Your task to perform on an android device: delete the emails in spam in the gmail app Image 0: 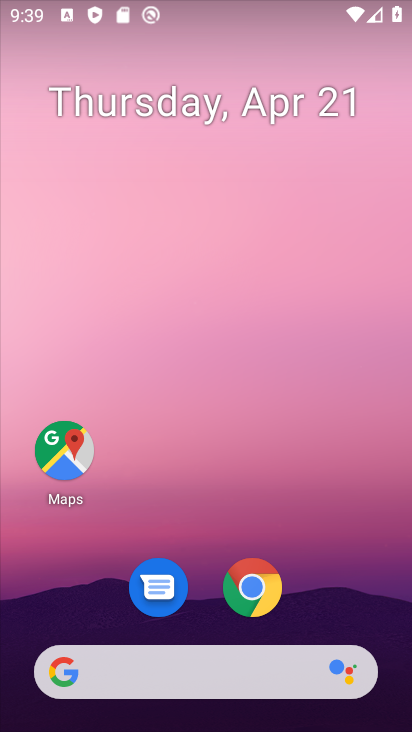
Step 0: drag from (86, 583) to (376, 168)
Your task to perform on an android device: delete the emails in spam in the gmail app Image 1: 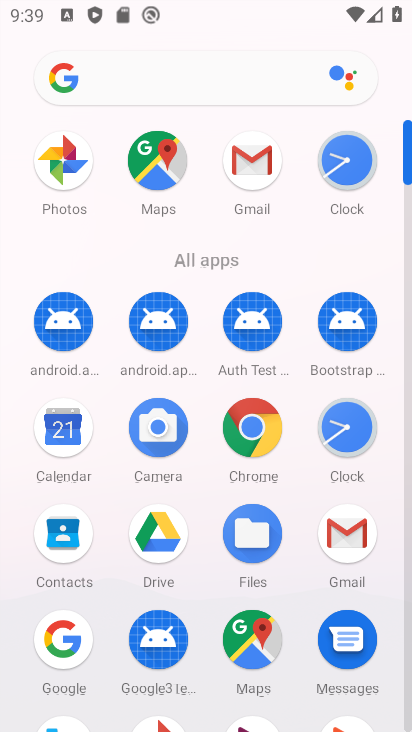
Step 1: click (333, 530)
Your task to perform on an android device: delete the emails in spam in the gmail app Image 2: 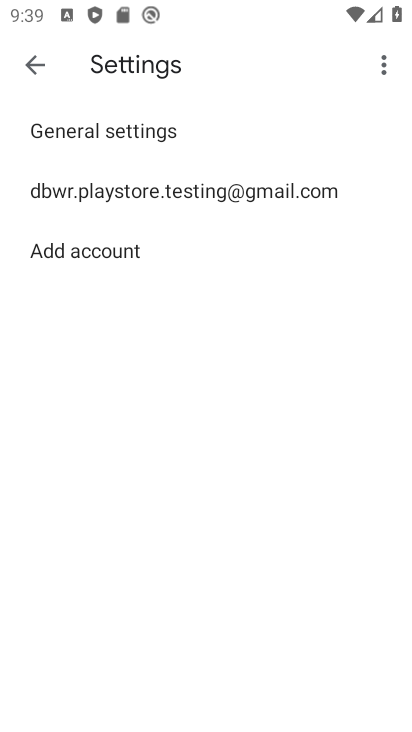
Step 2: press back button
Your task to perform on an android device: delete the emails in spam in the gmail app Image 3: 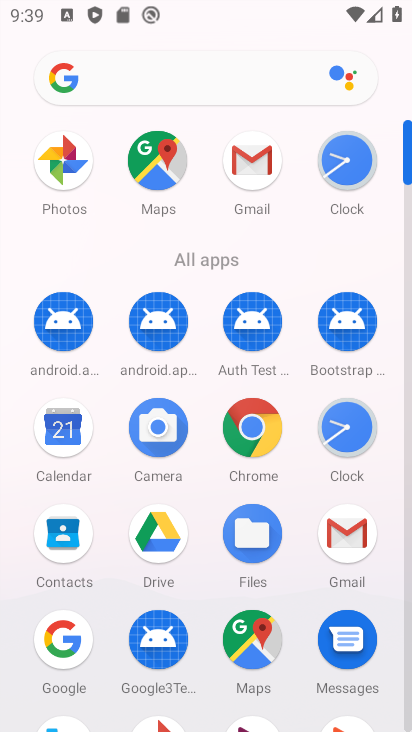
Step 3: click (254, 177)
Your task to perform on an android device: delete the emails in spam in the gmail app Image 4: 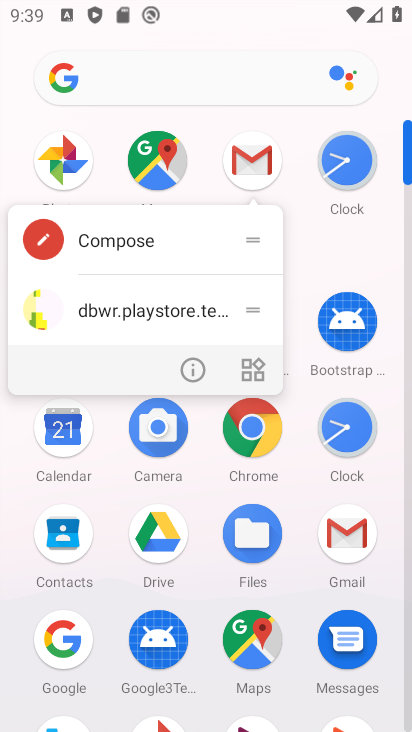
Step 4: click (263, 177)
Your task to perform on an android device: delete the emails in spam in the gmail app Image 5: 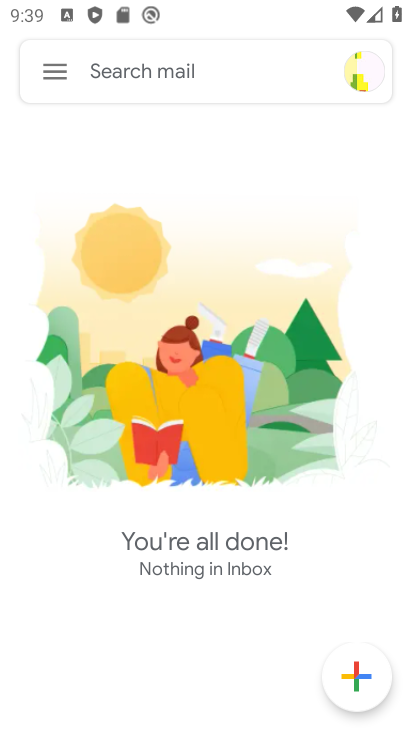
Step 5: click (46, 64)
Your task to perform on an android device: delete the emails in spam in the gmail app Image 6: 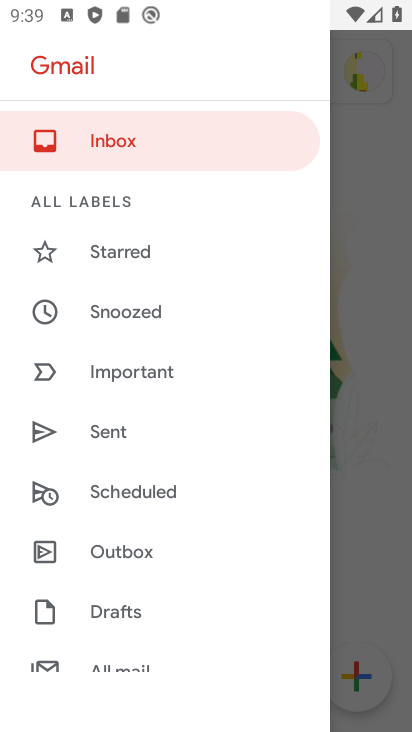
Step 6: click (177, 259)
Your task to perform on an android device: delete the emails in spam in the gmail app Image 7: 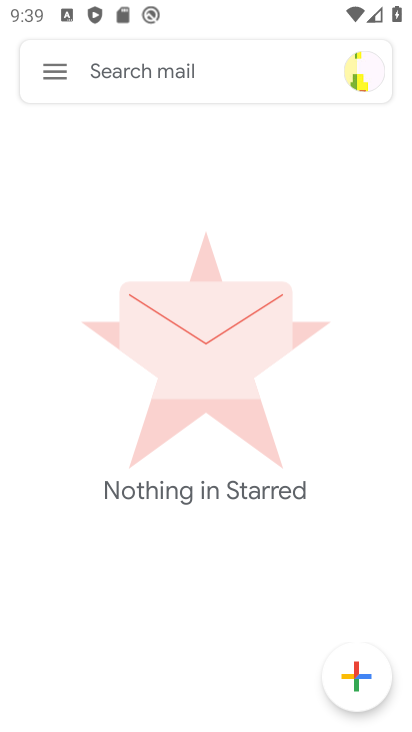
Step 7: task complete